Your task to perform on an android device: Go to Amazon Image 0: 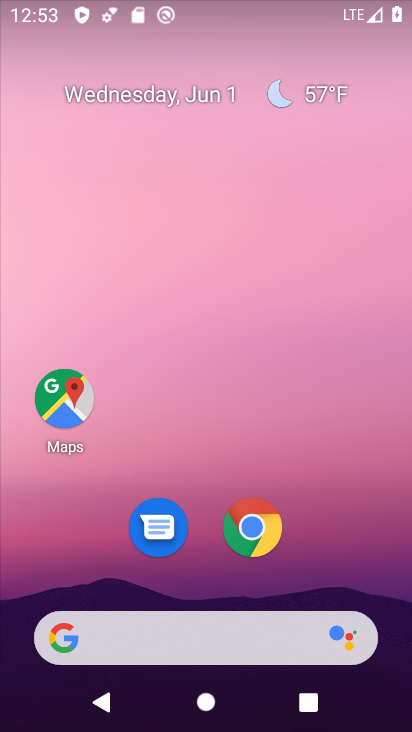
Step 0: click (258, 533)
Your task to perform on an android device: Go to Amazon Image 1: 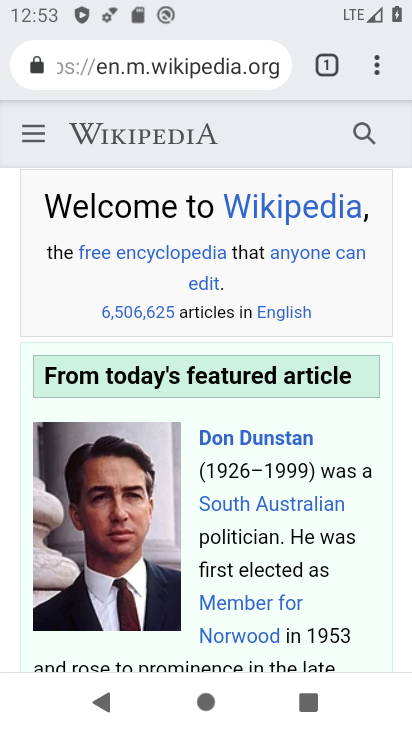
Step 1: click (177, 69)
Your task to perform on an android device: Go to Amazon Image 2: 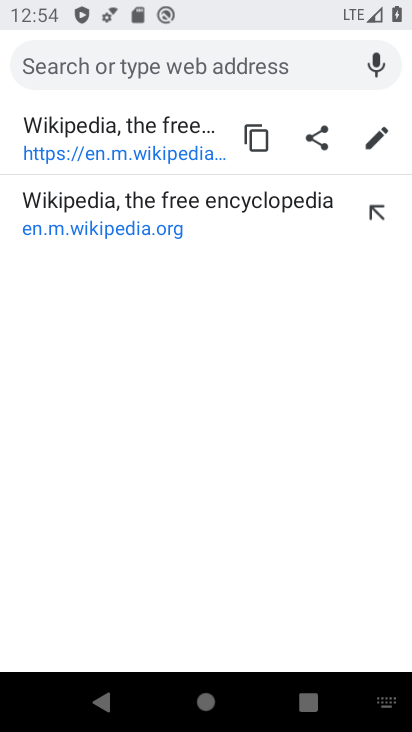
Step 2: type "amazon"
Your task to perform on an android device: Go to Amazon Image 3: 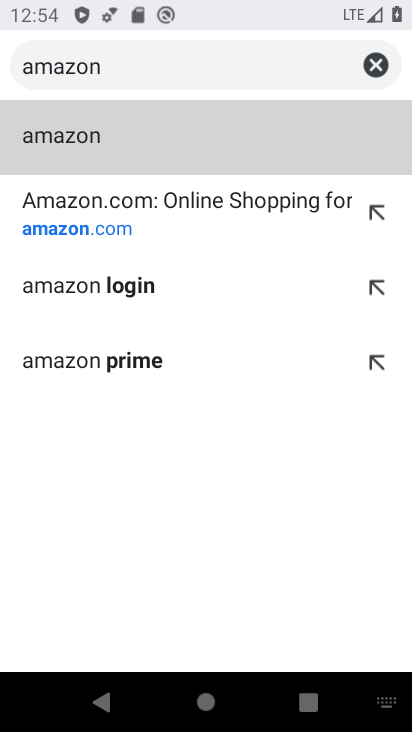
Step 3: click (167, 208)
Your task to perform on an android device: Go to Amazon Image 4: 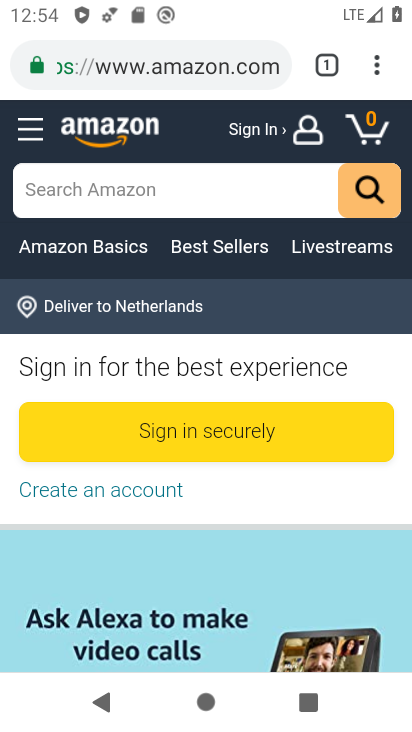
Step 4: task complete